Your task to perform on an android device: Go to eBay Image 0: 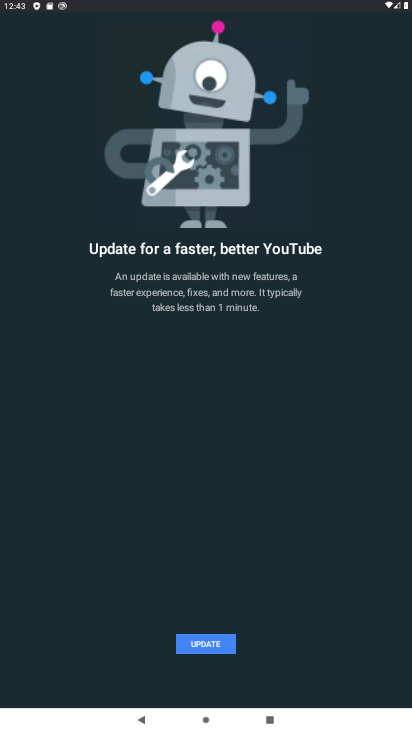
Step 0: press back button
Your task to perform on an android device: Go to eBay Image 1: 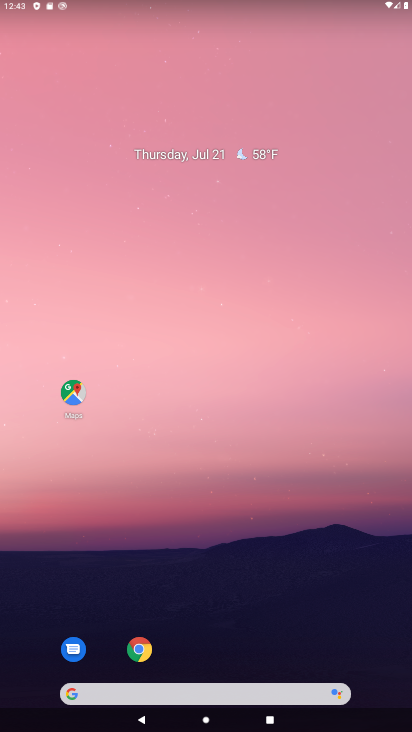
Step 1: drag from (243, 673) to (247, 66)
Your task to perform on an android device: Go to eBay Image 2: 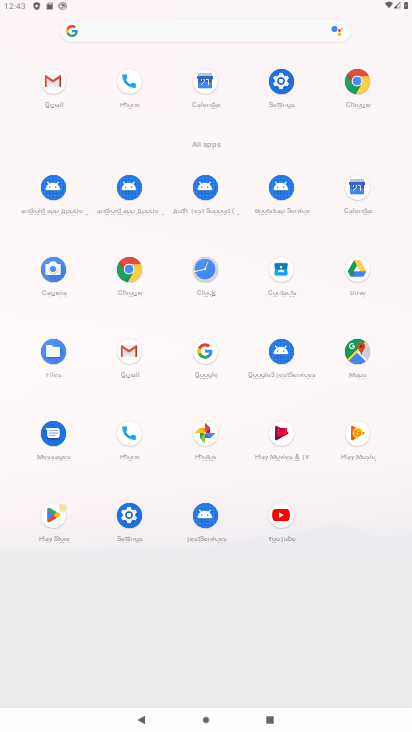
Step 2: click (132, 290)
Your task to perform on an android device: Go to eBay Image 3: 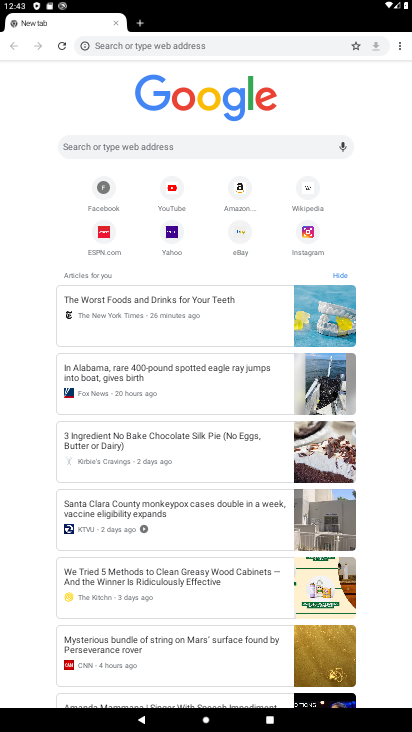
Step 3: click (397, 55)
Your task to perform on an android device: Go to eBay Image 4: 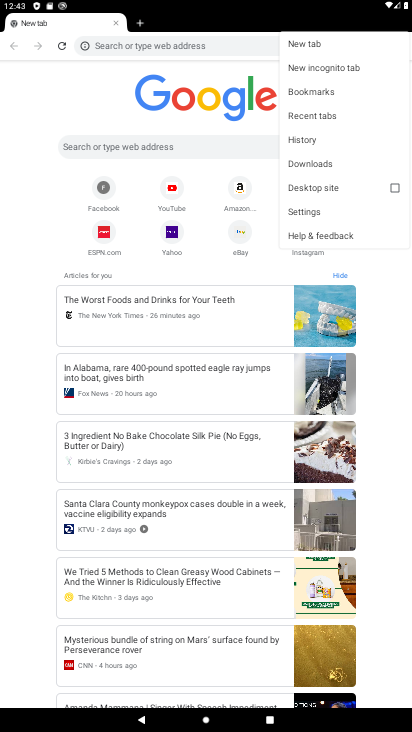
Step 4: click (4, 249)
Your task to perform on an android device: Go to eBay Image 5: 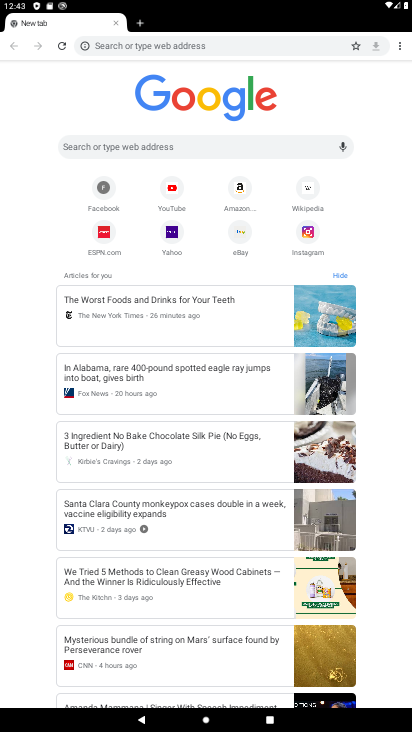
Step 5: click (38, 231)
Your task to perform on an android device: Go to eBay Image 6: 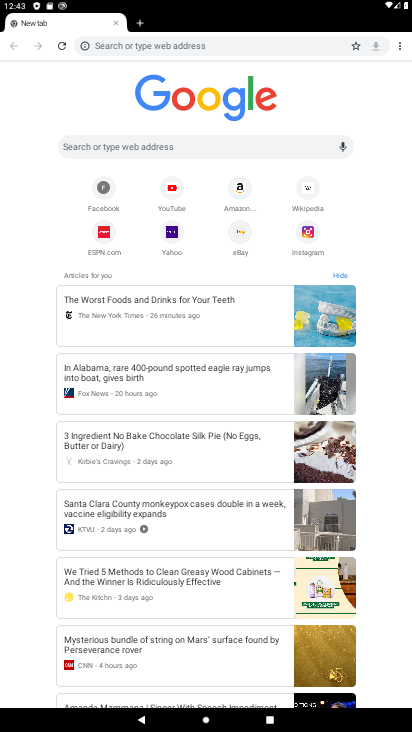
Step 6: click (249, 232)
Your task to perform on an android device: Go to eBay Image 7: 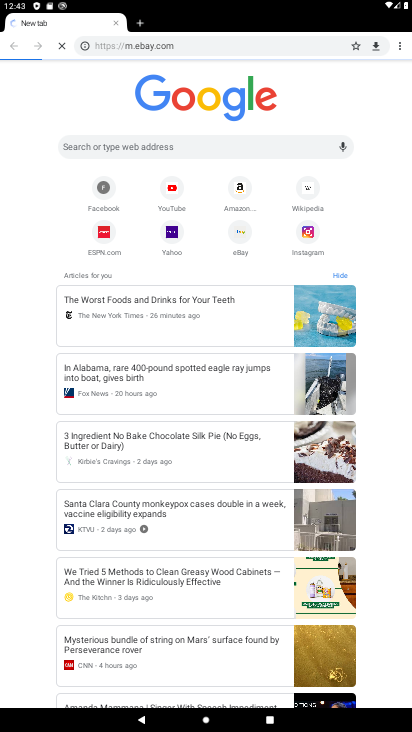
Step 7: task complete